Your task to perform on an android device: check storage Image 0: 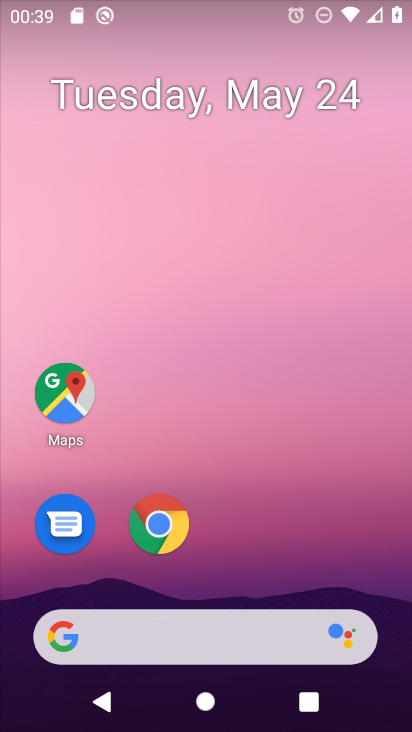
Step 0: drag from (231, 579) to (244, 219)
Your task to perform on an android device: check storage Image 1: 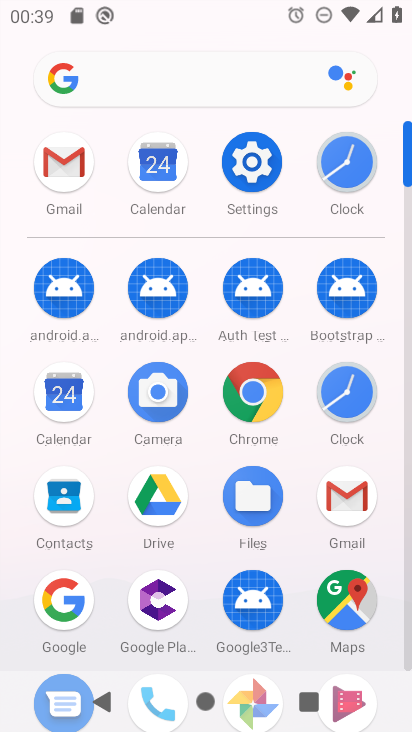
Step 1: click (237, 170)
Your task to perform on an android device: check storage Image 2: 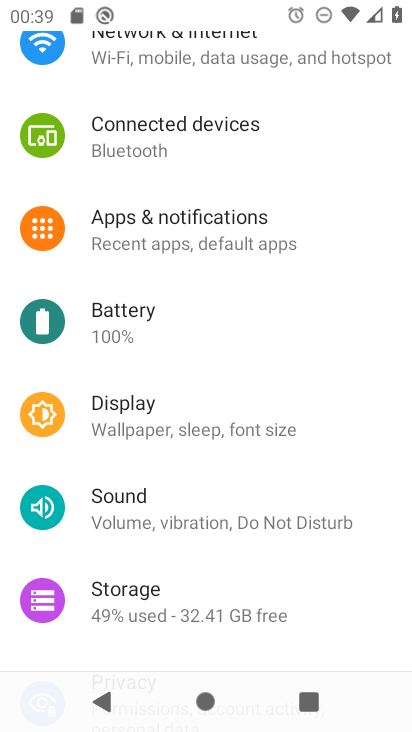
Step 2: click (182, 600)
Your task to perform on an android device: check storage Image 3: 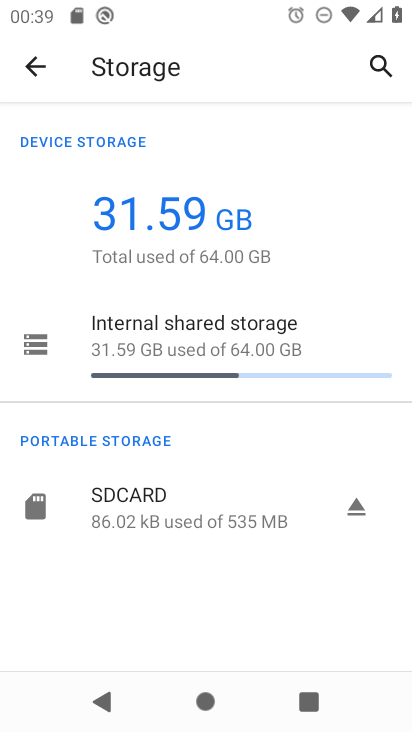
Step 3: task complete